Your task to perform on an android device: Go to internet settings Image 0: 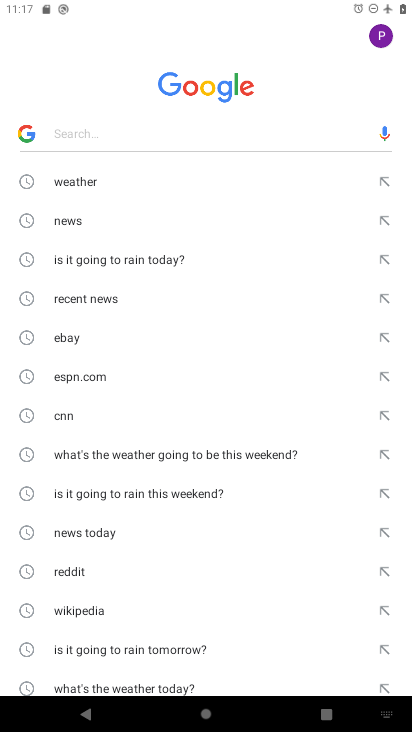
Step 0: press home button
Your task to perform on an android device: Go to internet settings Image 1: 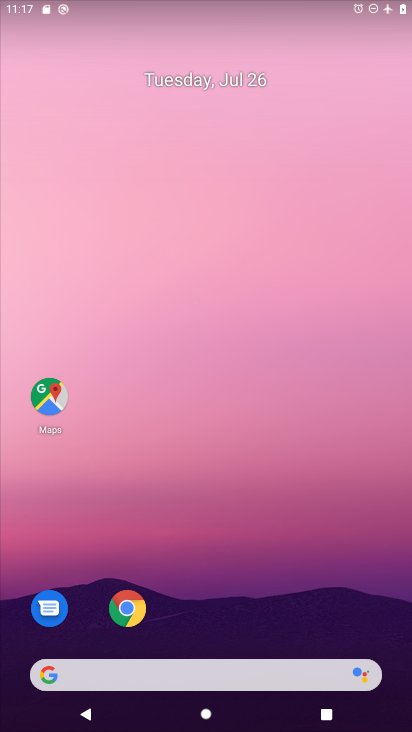
Step 1: drag from (327, 514) to (281, 138)
Your task to perform on an android device: Go to internet settings Image 2: 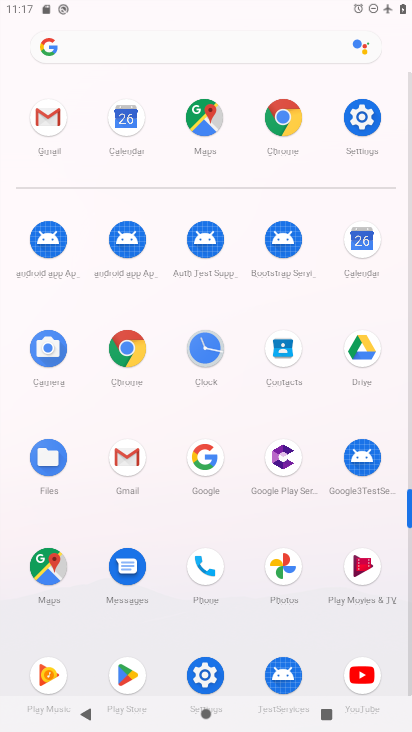
Step 2: click (377, 123)
Your task to perform on an android device: Go to internet settings Image 3: 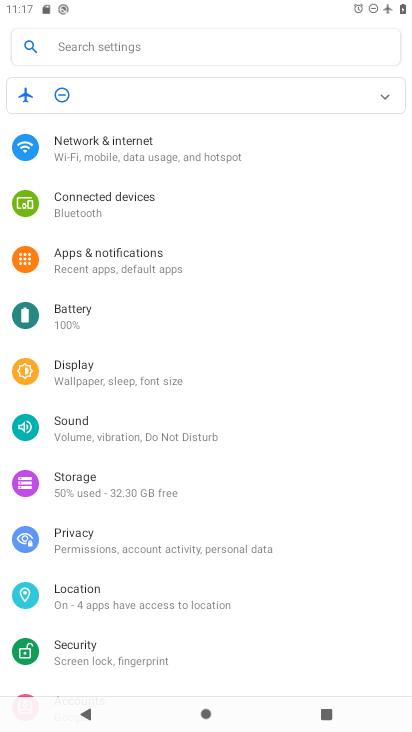
Step 3: click (85, 136)
Your task to perform on an android device: Go to internet settings Image 4: 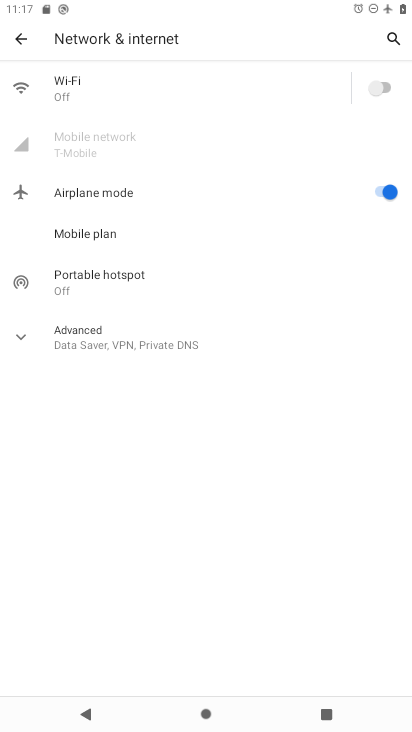
Step 4: task complete